Your task to perform on an android device: turn off priority inbox in the gmail app Image 0: 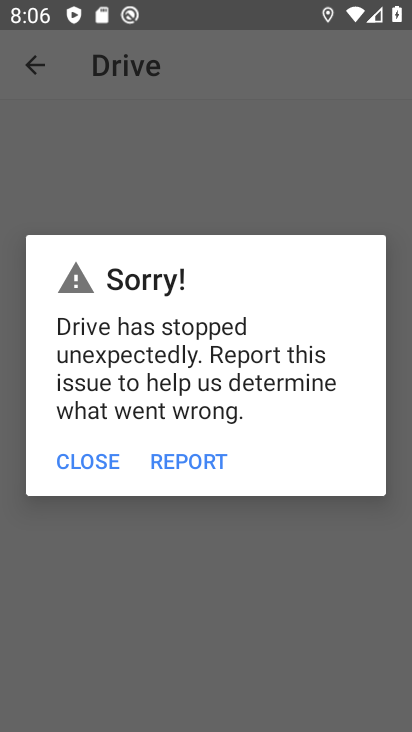
Step 0: press home button
Your task to perform on an android device: turn off priority inbox in the gmail app Image 1: 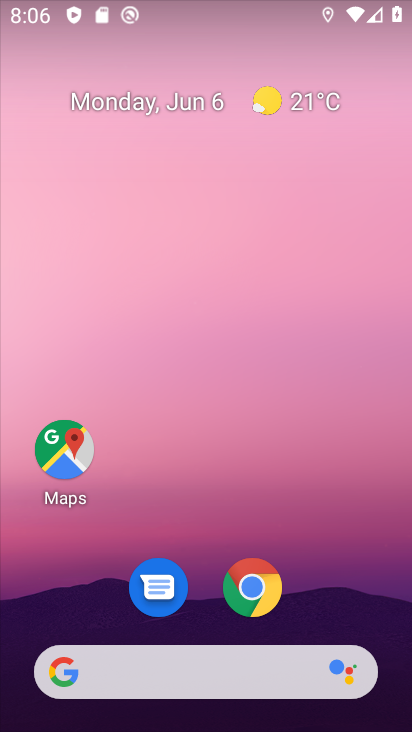
Step 1: drag from (332, 584) to (301, 261)
Your task to perform on an android device: turn off priority inbox in the gmail app Image 2: 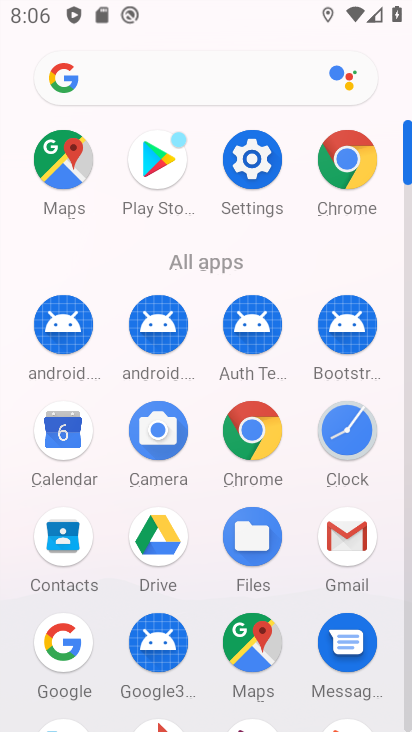
Step 2: click (351, 550)
Your task to perform on an android device: turn off priority inbox in the gmail app Image 3: 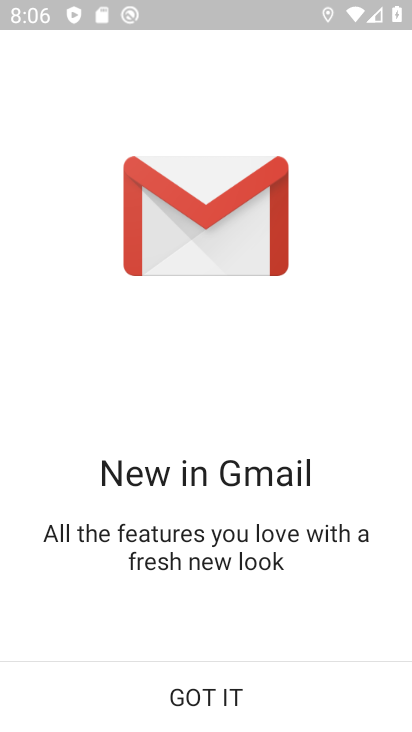
Step 3: click (200, 691)
Your task to perform on an android device: turn off priority inbox in the gmail app Image 4: 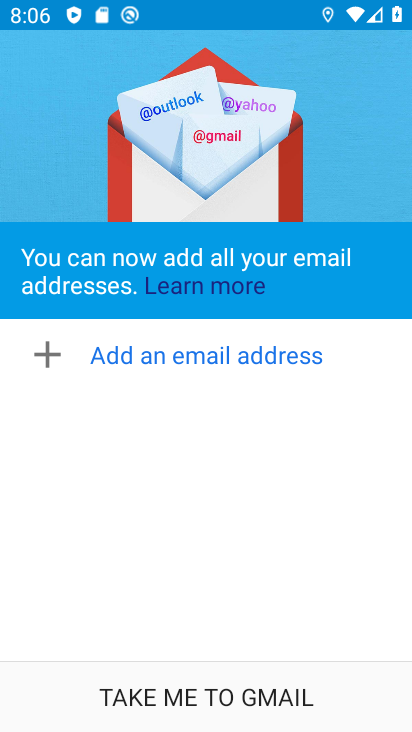
Step 4: click (204, 683)
Your task to perform on an android device: turn off priority inbox in the gmail app Image 5: 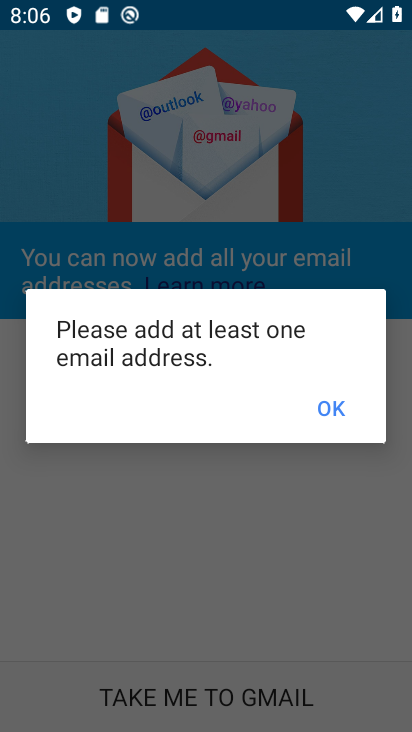
Step 5: click (332, 421)
Your task to perform on an android device: turn off priority inbox in the gmail app Image 6: 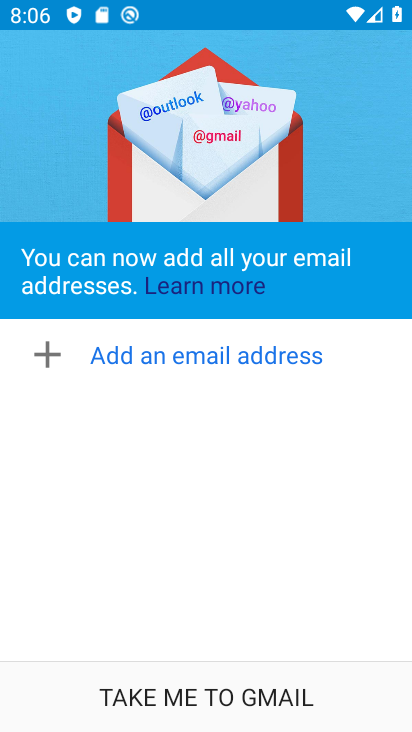
Step 6: click (231, 726)
Your task to perform on an android device: turn off priority inbox in the gmail app Image 7: 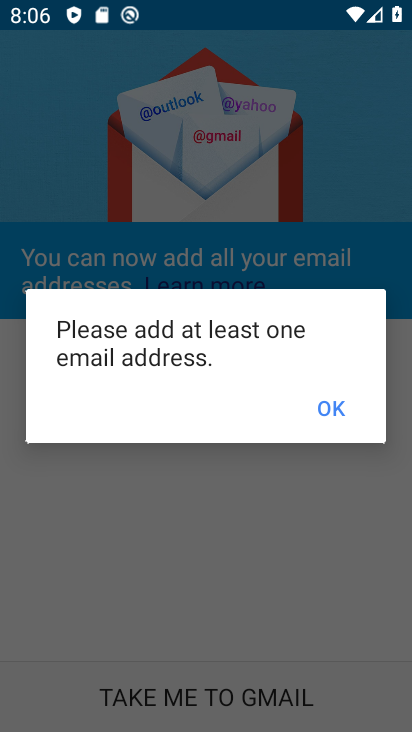
Step 7: click (329, 416)
Your task to perform on an android device: turn off priority inbox in the gmail app Image 8: 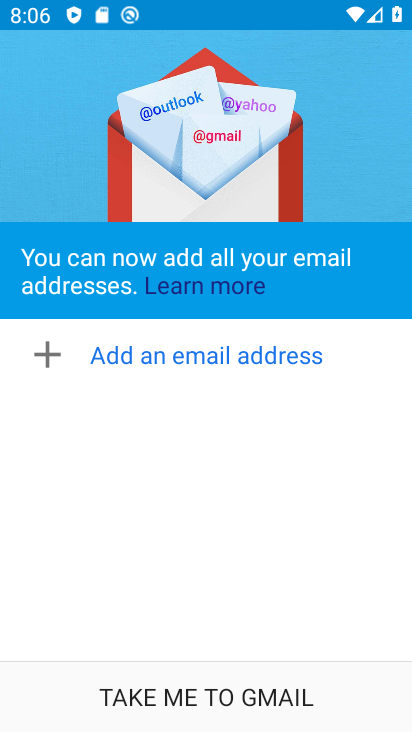
Step 8: click (271, 351)
Your task to perform on an android device: turn off priority inbox in the gmail app Image 9: 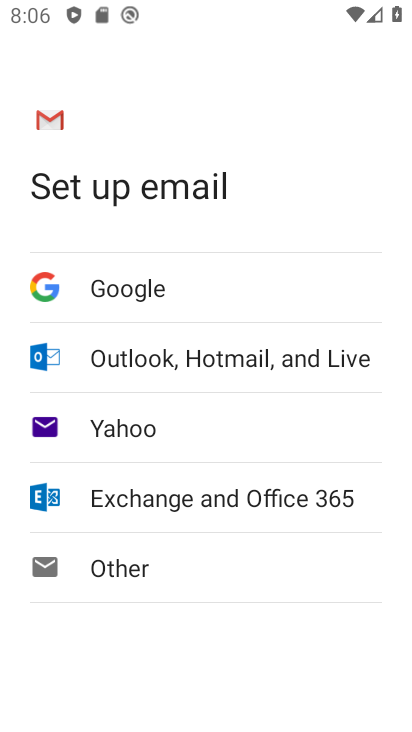
Step 9: click (258, 291)
Your task to perform on an android device: turn off priority inbox in the gmail app Image 10: 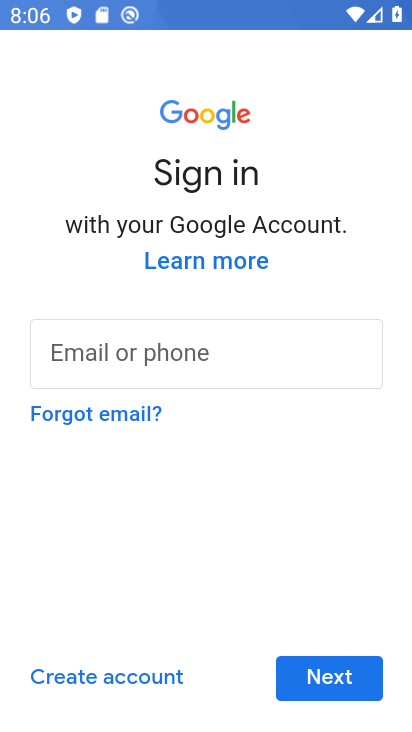
Step 10: press back button
Your task to perform on an android device: turn off priority inbox in the gmail app Image 11: 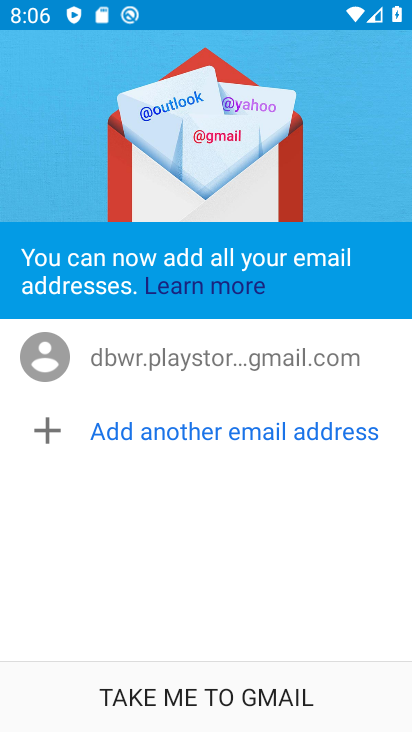
Step 11: press back button
Your task to perform on an android device: turn off priority inbox in the gmail app Image 12: 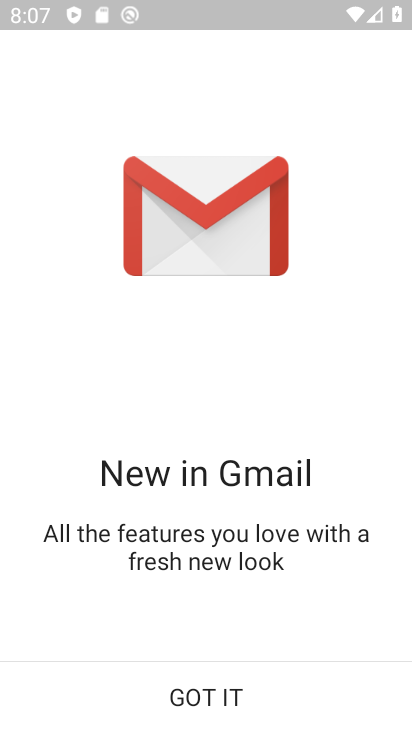
Step 12: click (241, 695)
Your task to perform on an android device: turn off priority inbox in the gmail app Image 13: 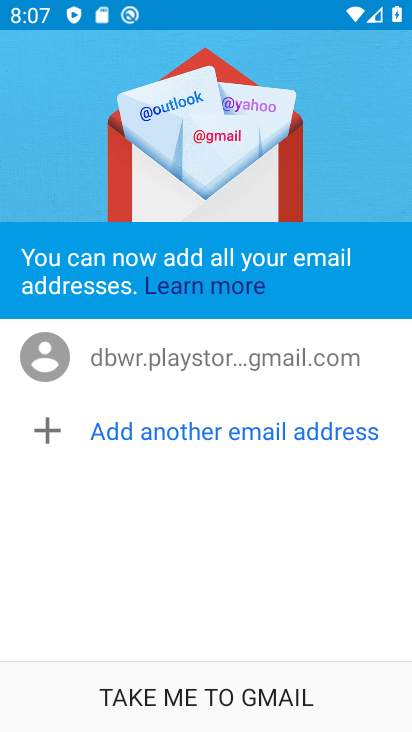
Step 13: click (270, 342)
Your task to perform on an android device: turn off priority inbox in the gmail app Image 14: 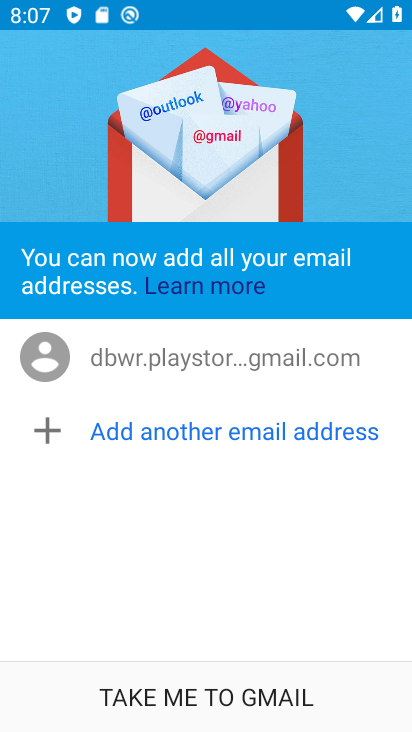
Step 14: click (166, 371)
Your task to perform on an android device: turn off priority inbox in the gmail app Image 15: 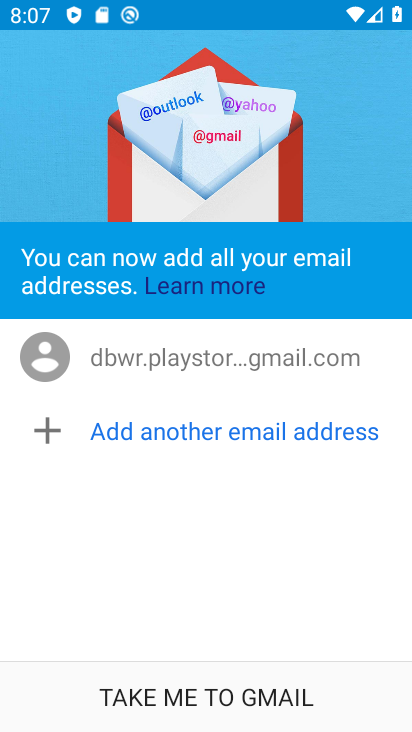
Step 15: click (189, 705)
Your task to perform on an android device: turn off priority inbox in the gmail app Image 16: 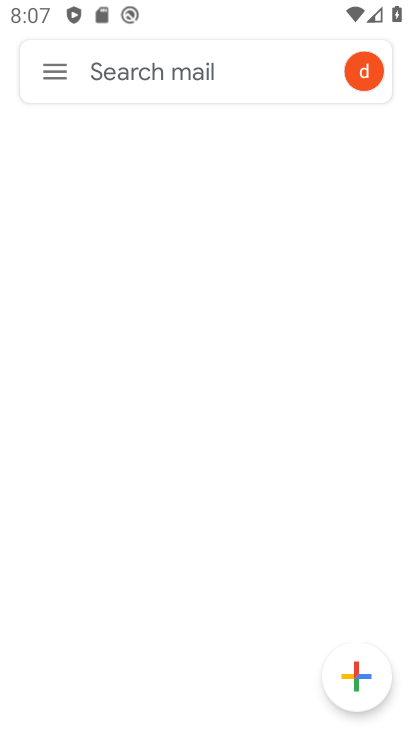
Step 16: click (54, 74)
Your task to perform on an android device: turn off priority inbox in the gmail app Image 17: 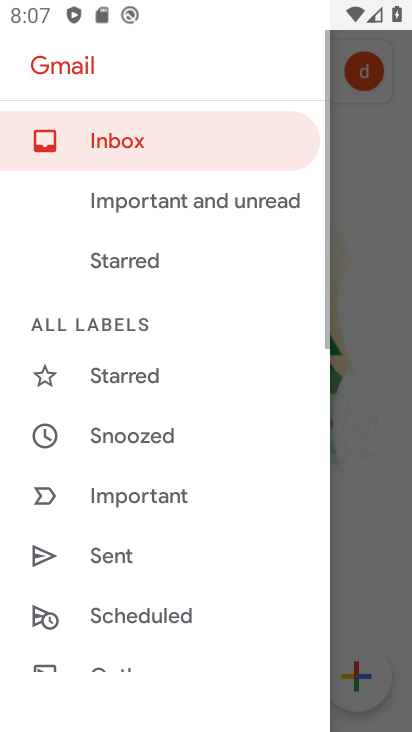
Step 17: drag from (266, 641) to (302, 238)
Your task to perform on an android device: turn off priority inbox in the gmail app Image 18: 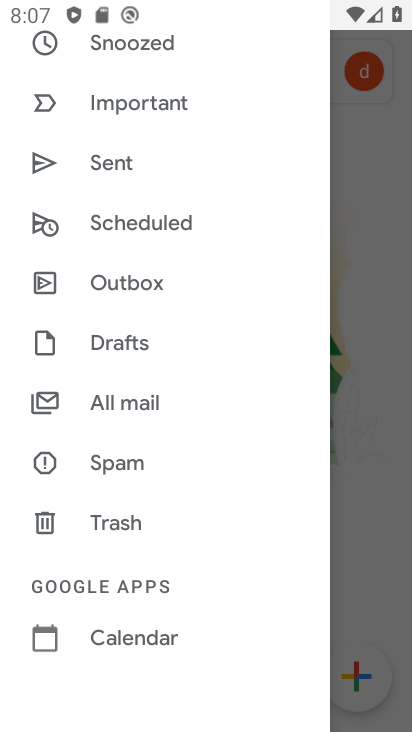
Step 18: drag from (152, 590) to (217, 248)
Your task to perform on an android device: turn off priority inbox in the gmail app Image 19: 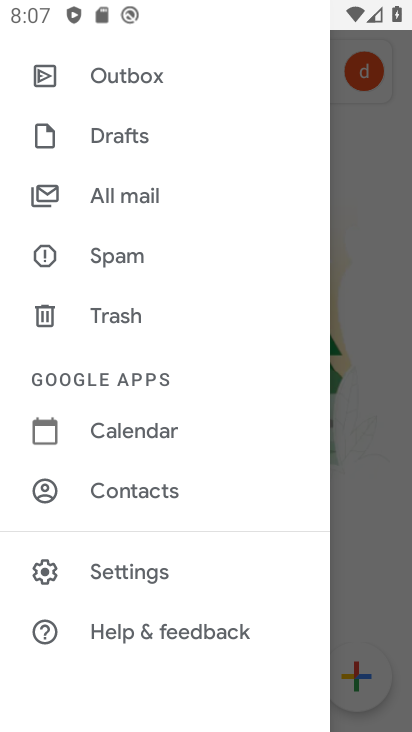
Step 19: click (118, 583)
Your task to perform on an android device: turn off priority inbox in the gmail app Image 20: 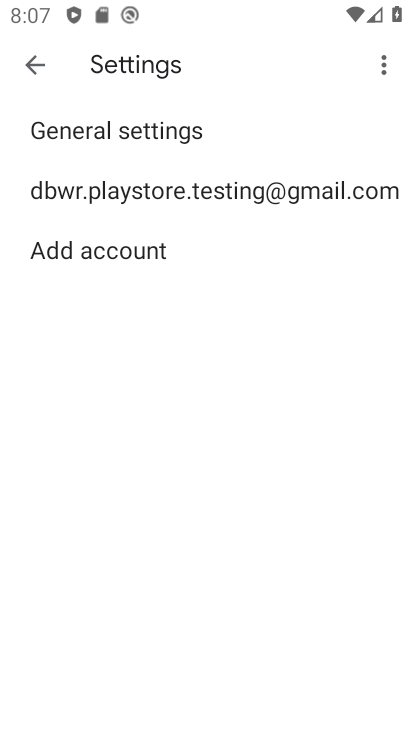
Step 20: click (191, 184)
Your task to perform on an android device: turn off priority inbox in the gmail app Image 21: 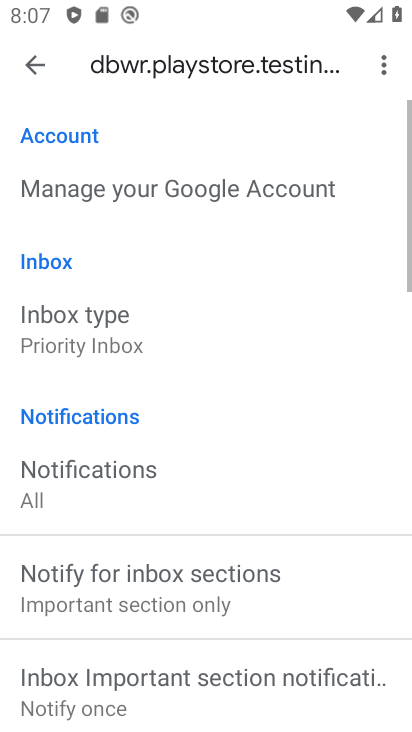
Step 21: click (97, 334)
Your task to perform on an android device: turn off priority inbox in the gmail app Image 22: 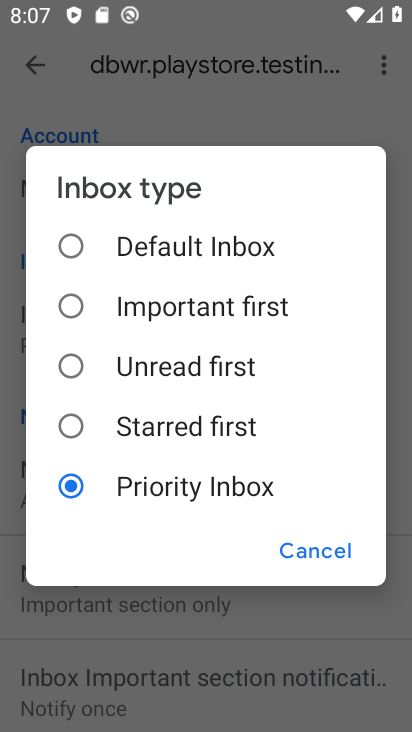
Step 22: task complete